Your task to perform on an android device: uninstall "PlayWell" Image 0: 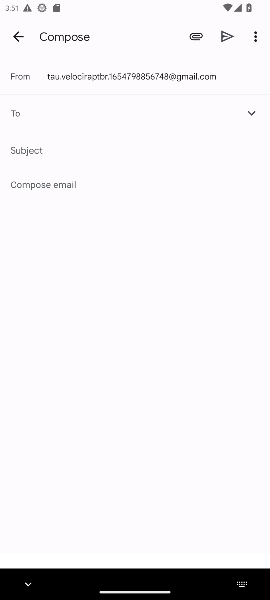
Step 0: press home button
Your task to perform on an android device: uninstall "PlayWell" Image 1: 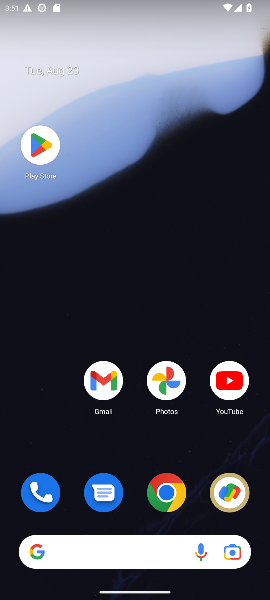
Step 1: click (27, 148)
Your task to perform on an android device: uninstall "PlayWell" Image 2: 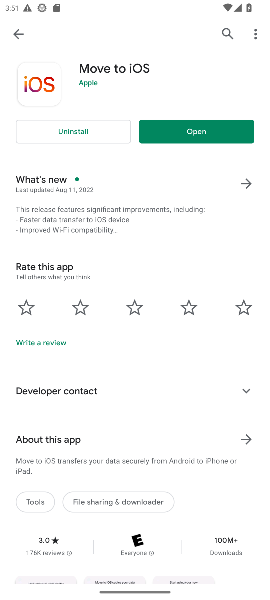
Step 2: click (234, 38)
Your task to perform on an android device: uninstall "PlayWell" Image 3: 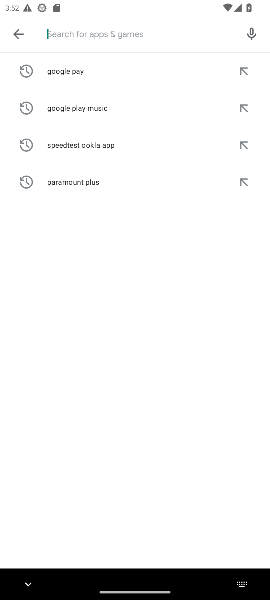
Step 3: click (254, 38)
Your task to perform on an android device: uninstall "PlayWell" Image 4: 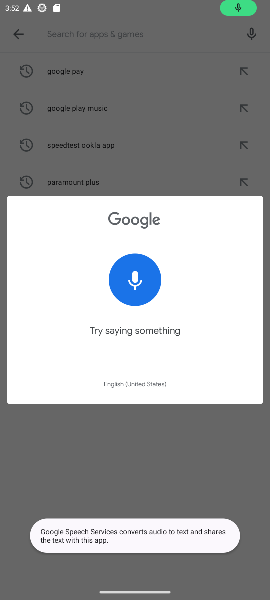
Step 4: click (170, 42)
Your task to perform on an android device: uninstall "PlayWell" Image 5: 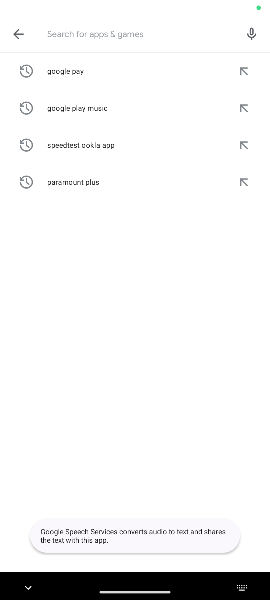
Step 5: click (170, 42)
Your task to perform on an android device: uninstall "PlayWell" Image 6: 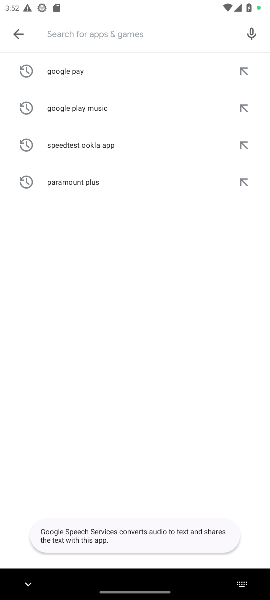
Step 6: click (170, 42)
Your task to perform on an android device: uninstall "PlayWell" Image 7: 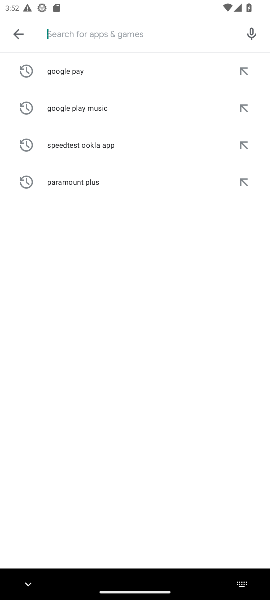
Step 7: type "palywell"
Your task to perform on an android device: uninstall "PlayWell" Image 8: 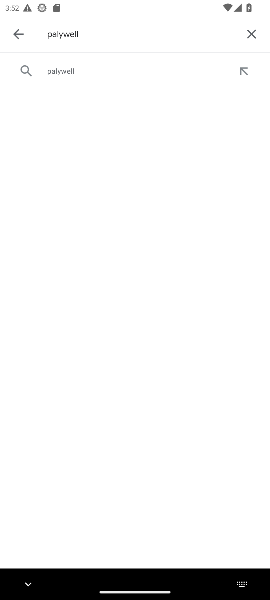
Step 8: click (159, 78)
Your task to perform on an android device: uninstall "PlayWell" Image 9: 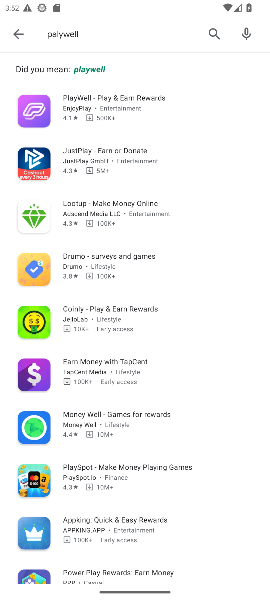
Step 9: click (143, 102)
Your task to perform on an android device: uninstall "PlayWell" Image 10: 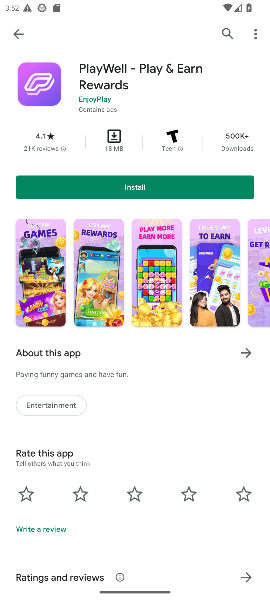
Step 10: click (175, 195)
Your task to perform on an android device: uninstall "PlayWell" Image 11: 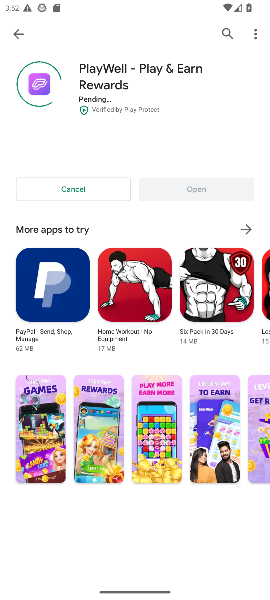
Step 11: task complete